Your task to perform on an android device: Go to privacy settings Image 0: 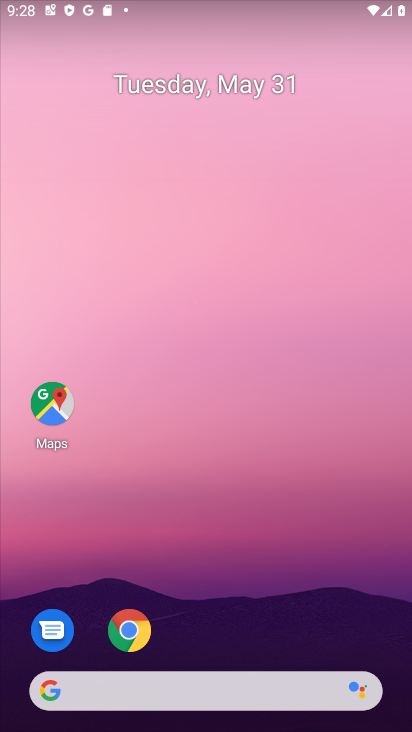
Step 0: drag from (148, 719) to (167, 40)
Your task to perform on an android device: Go to privacy settings Image 1: 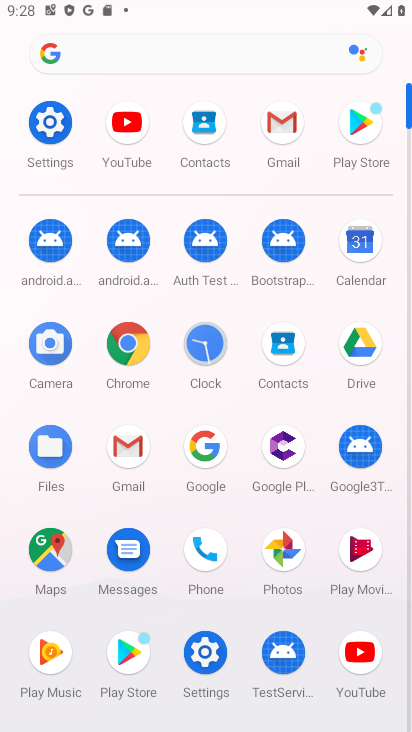
Step 1: click (40, 145)
Your task to perform on an android device: Go to privacy settings Image 2: 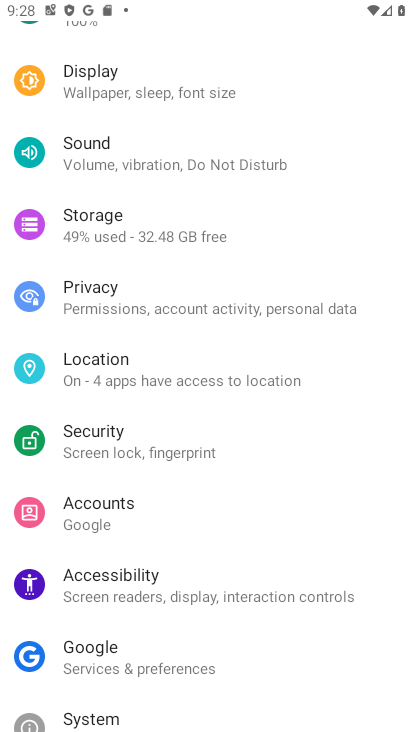
Step 2: click (110, 319)
Your task to perform on an android device: Go to privacy settings Image 3: 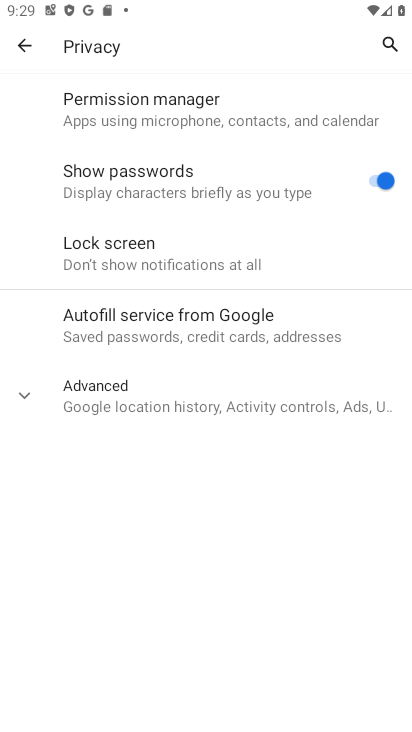
Step 3: task complete